Your task to perform on an android device: What's the weather today? Image 0: 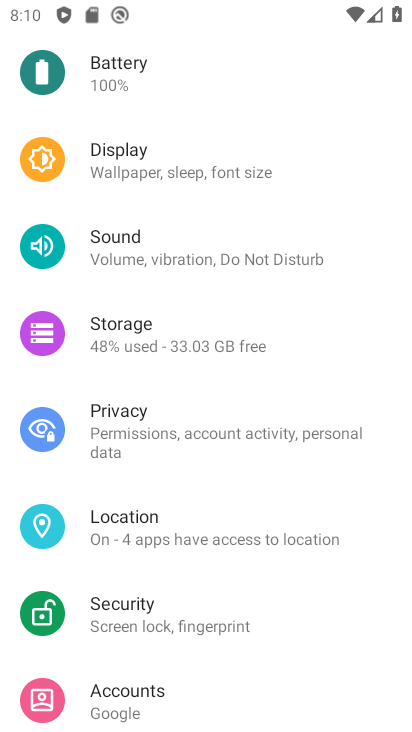
Step 0: press home button
Your task to perform on an android device: What's the weather today? Image 1: 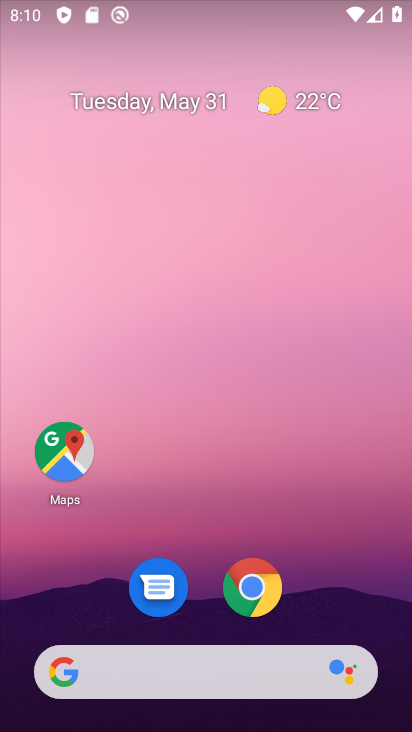
Step 1: click (341, 94)
Your task to perform on an android device: What's the weather today? Image 2: 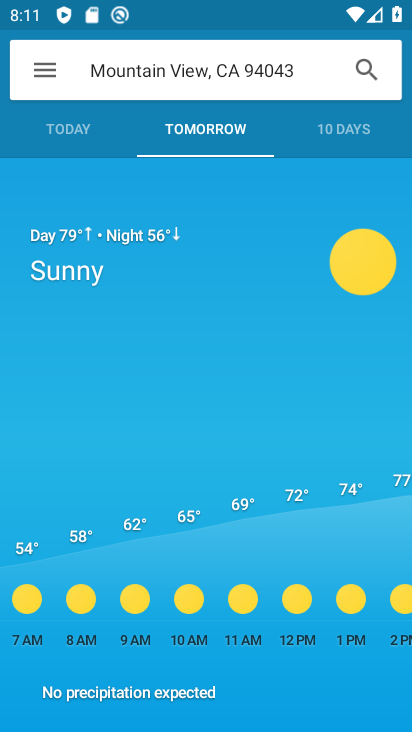
Step 2: click (80, 135)
Your task to perform on an android device: What's the weather today? Image 3: 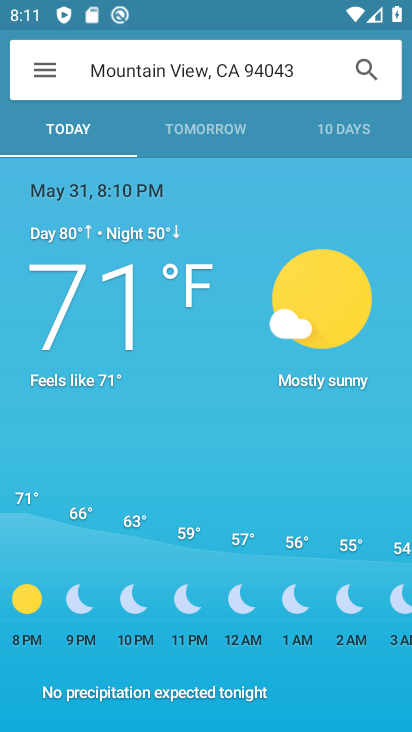
Step 3: task complete